Your task to perform on an android device: turn on priority inbox in the gmail app Image 0: 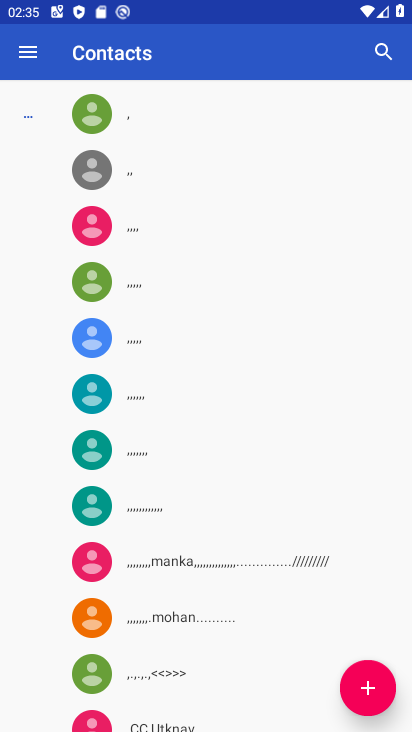
Step 0: press home button
Your task to perform on an android device: turn on priority inbox in the gmail app Image 1: 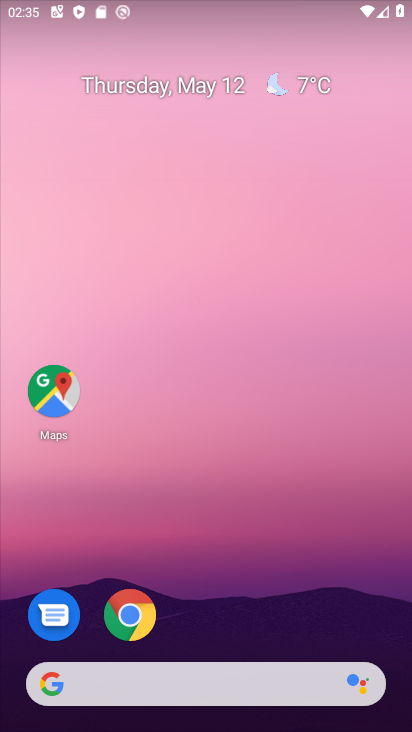
Step 1: drag from (226, 691) to (241, 160)
Your task to perform on an android device: turn on priority inbox in the gmail app Image 2: 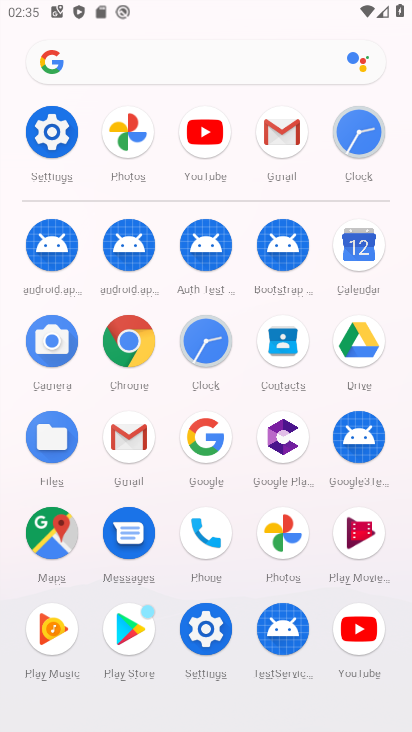
Step 2: click (133, 435)
Your task to perform on an android device: turn on priority inbox in the gmail app Image 3: 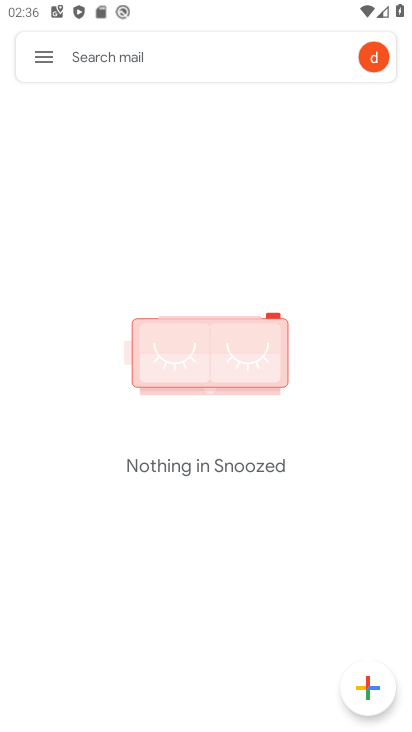
Step 3: click (52, 65)
Your task to perform on an android device: turn on priority inbox in the gmail app Image 4: 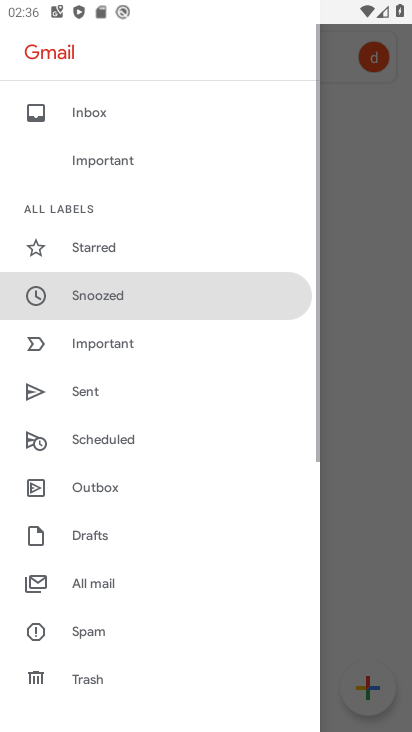
Step 4: drag from (93, 633) to (106, 114)
Your task to perform on an android device: turn on priority inbox in the gmail app Image 5: 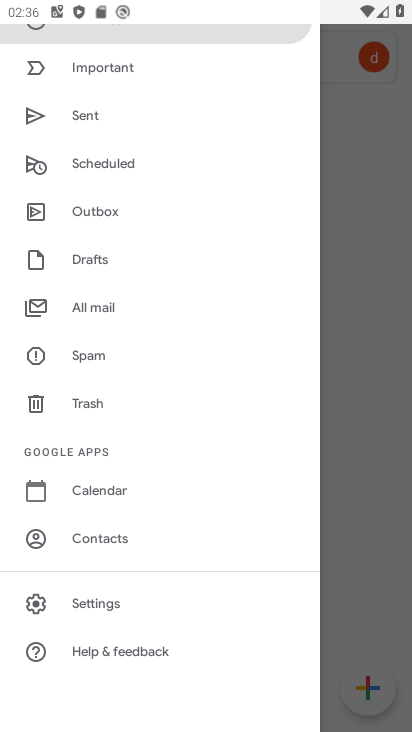
Step 5: click (113, 592)
Your task to perform on an android device: turn on priority inbox in the gmail app Image 6: 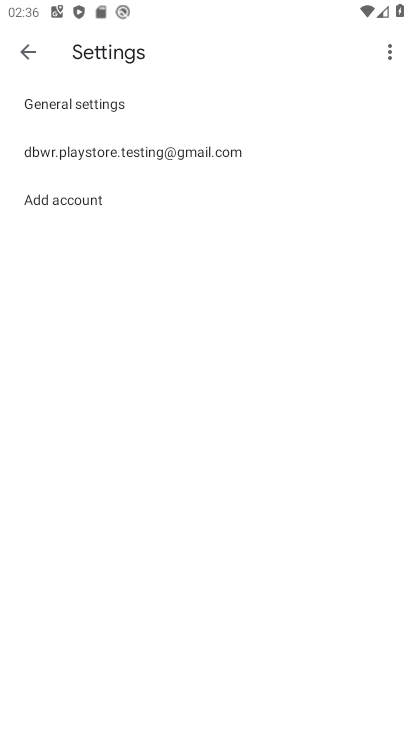
Step 6: click (115, 148)
Your task to perform on an android device: turn on priority inbox in the gmail app Image 7: 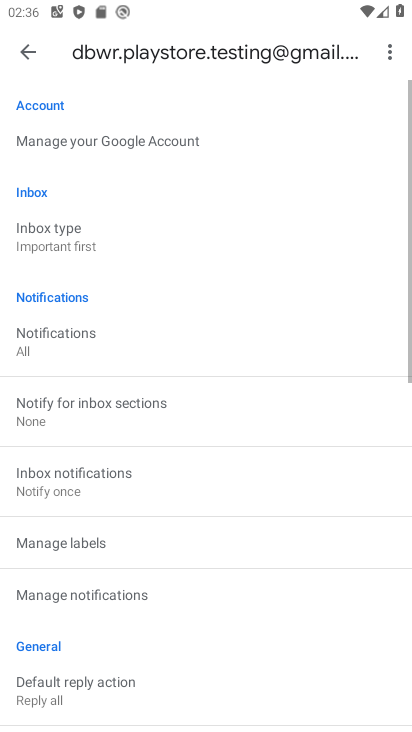
Step 7: drag from (139, 578) to (102, 50)
Your task to perform on an android device: turn on priority inbox in the gmail app Image 8: 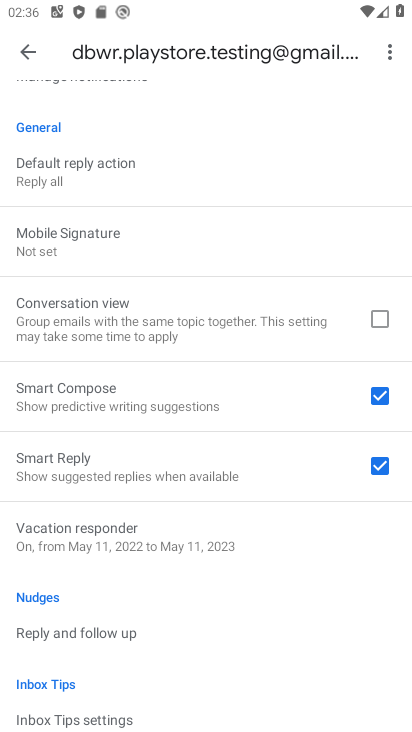
Step 8: drag from (116, 586) to (151, 1)
Your task to perform on an android device: turn on priority inbox in the gmail app Image 9: 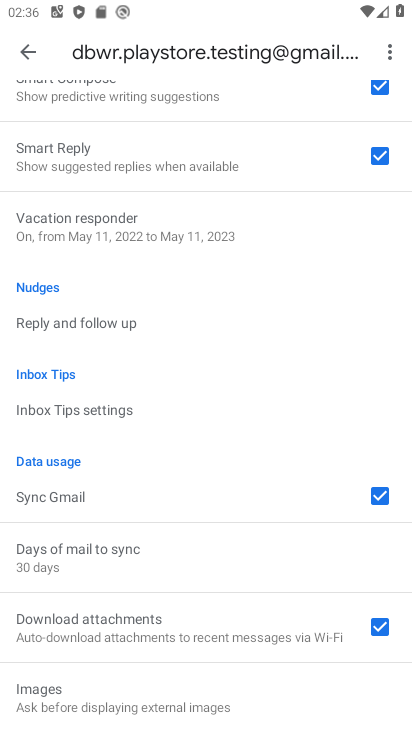
Step 9: drag from (136, 194) to (79, 714)
Your task to perform on an android device: turn on priority inbox in the gmail app Image 10: 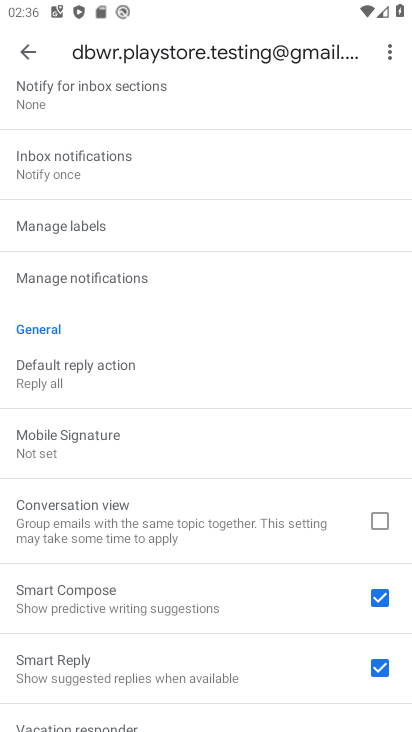
Step 10: drag from (104, 138) to (215, 610)
Your task to perform on an android device: turn on priority inbox in the gmail app Image 11: 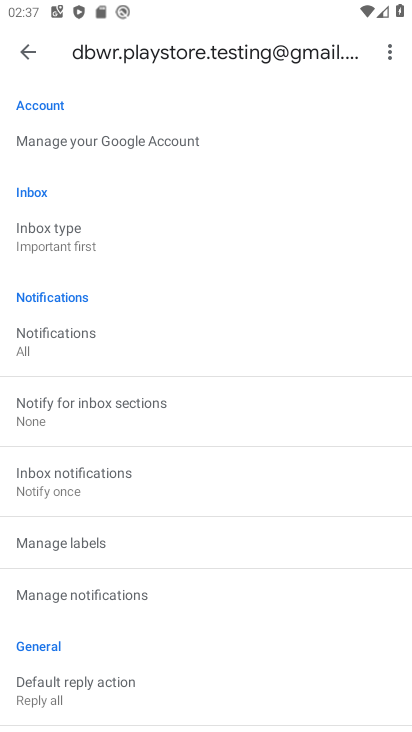
Step 11: drag from (146, 177) to (221, 634)
Your task to perform on an android device: turn on priority inbox in the gmail app Image 12: 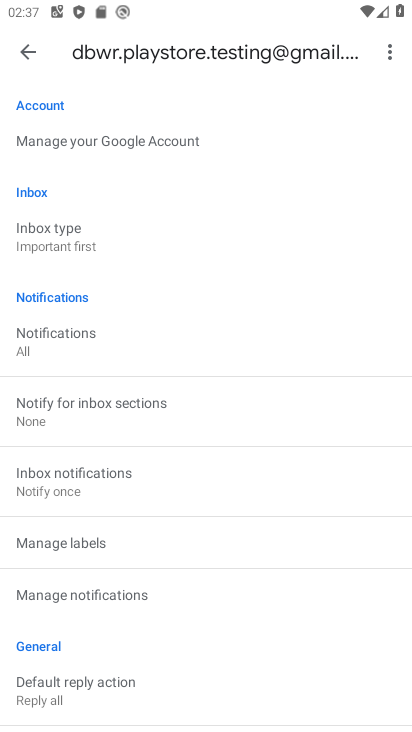
Step 12: click (75, 241)
Your task to perform on an android device: turn on priority inbox in the gmail app Image 13: 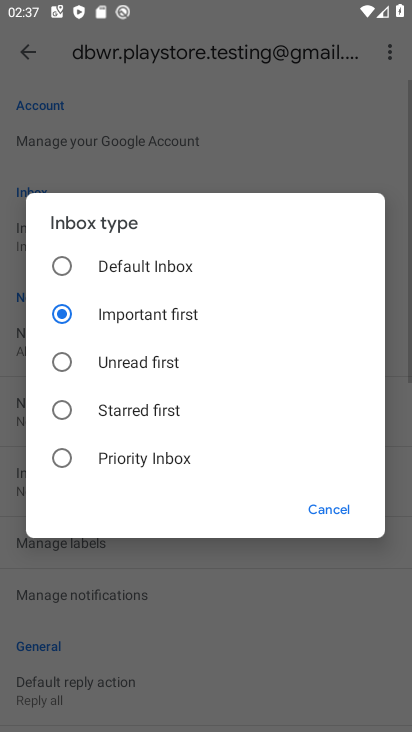
Step 13: click (122, 451)
Your task to perform on an android device: turn on priority inbox in the gmail app Image 14: 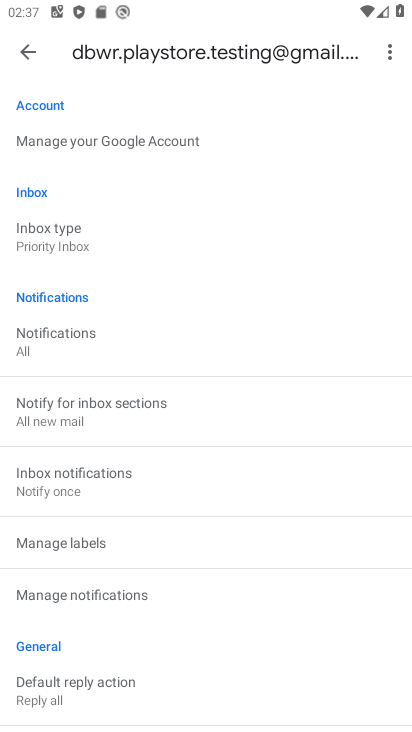
Step 14: task complete